Your task to perform on an android device: see creations saved in the google photos Image 0: 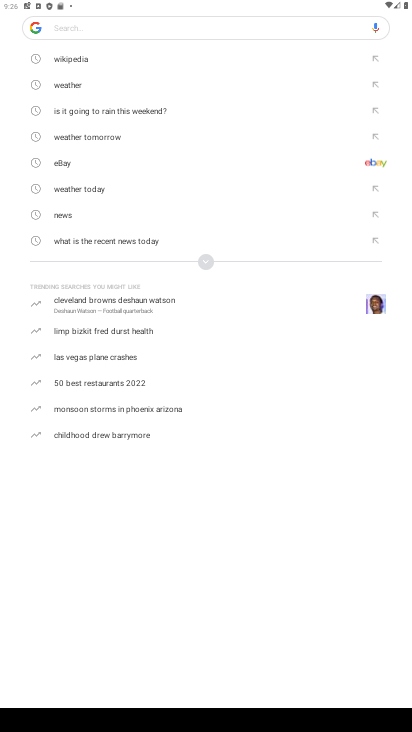
Step 0: press home button
Your task to perform on an android device: see creations saved in the google photos Image 1: 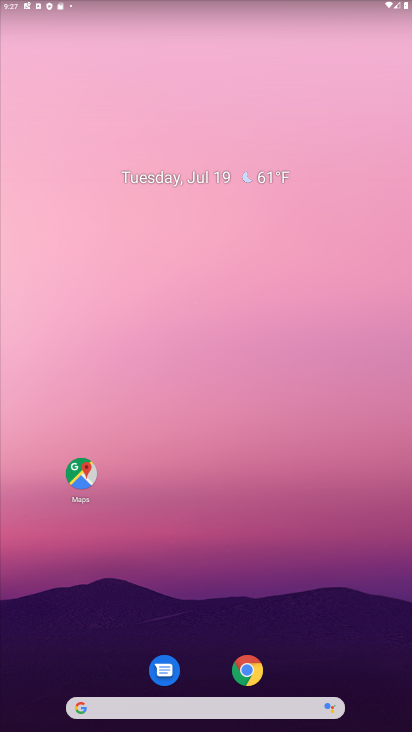
Step 1: drag from (147, 299) to (147, 187)
Your task to perform on an android device: see creations saved in the google photos Image 2: 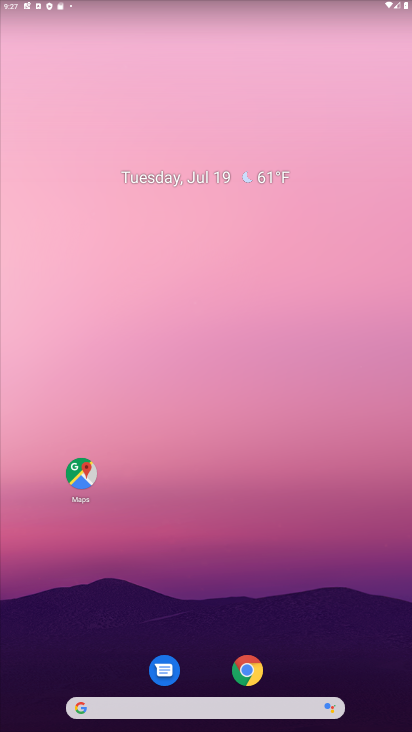
Step 2: drag from (204, 619) to (188, 126)
Your task to perform on an android device: see creations saved in the google photos Image 3: 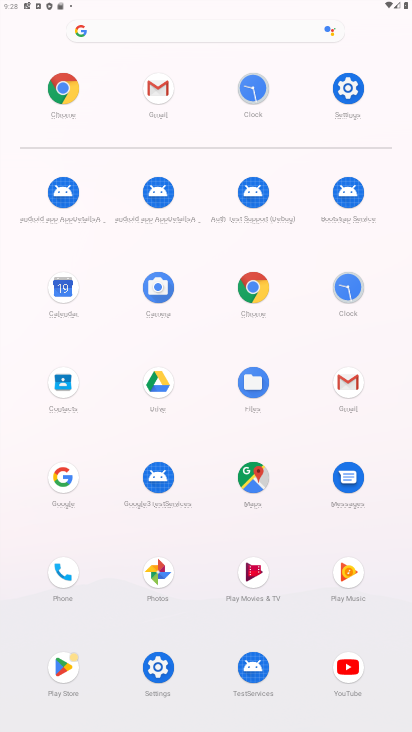
Step 3: click (184, 572)
Your task to perform on an android device: see creations saved in the google photos Image 4: 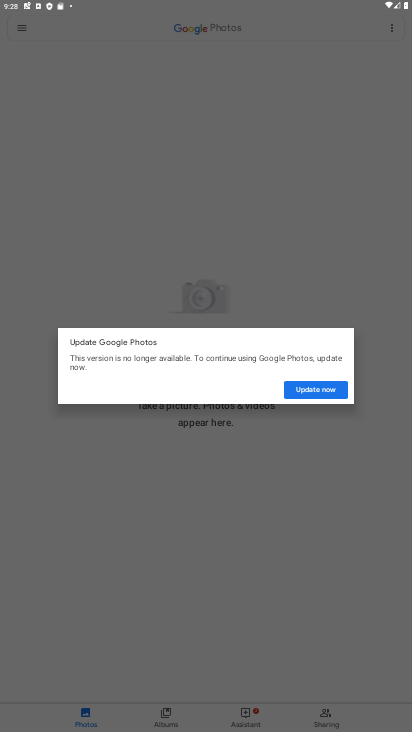
Step 4: click (318, 392)
Your task to perform on an android device: see creations saved in the google photos Image 5: 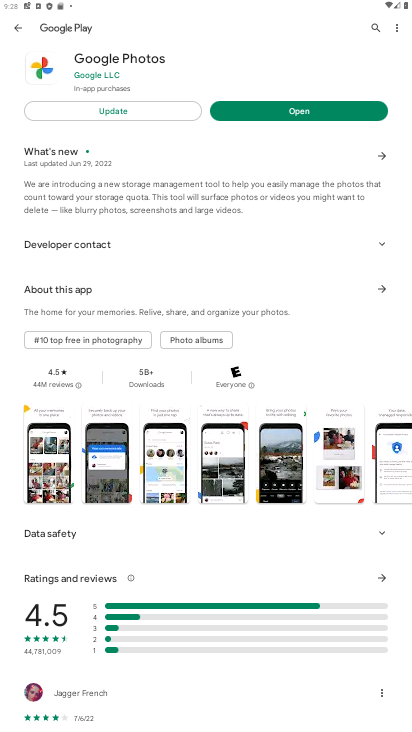
Step 5: click (146, 110)
Your task to perform on an android device: see creations saved in the google photos Image 6: 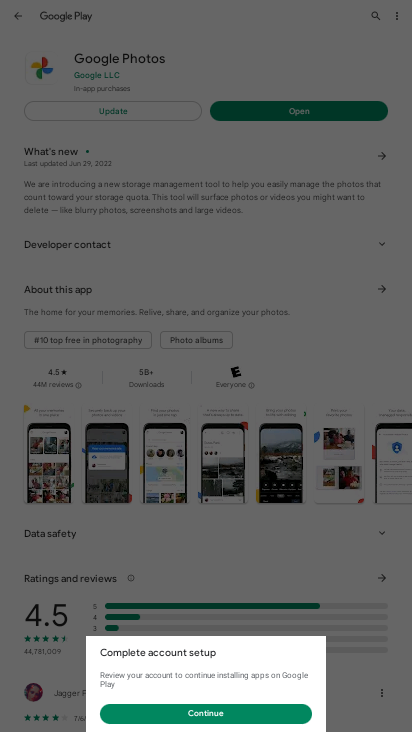
Step 6: click (259, 721)
Your task to perform on an android device: see creations saved in the google photos Image 7: 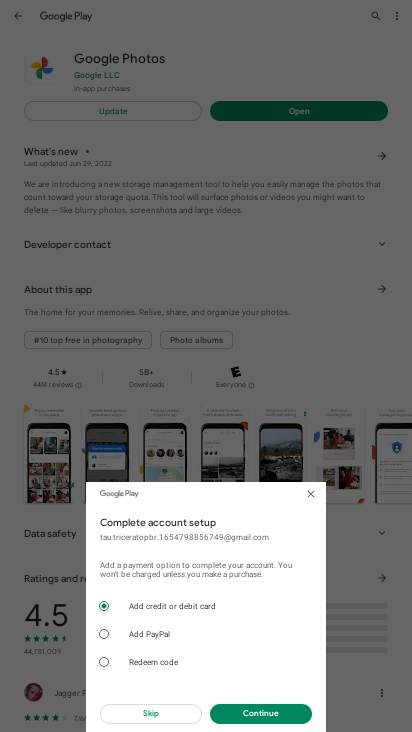
Step 7: click (163, 715)
Your task to perform on an android device: see creations saved in the google photos Image 8: 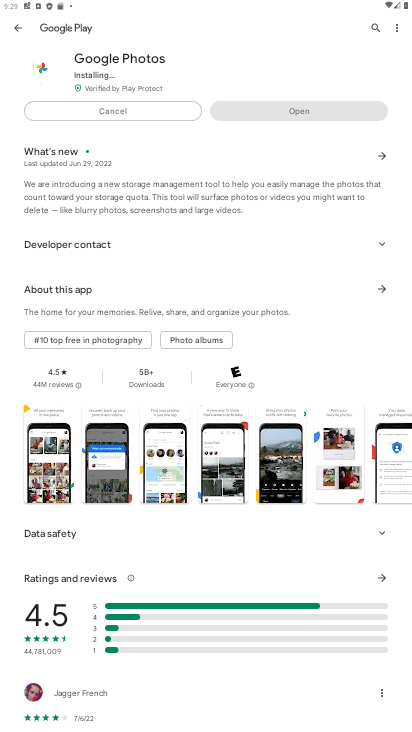
Step 8: task complete